Your task to perform on an android device: toggle improve location accuracy Image 0: 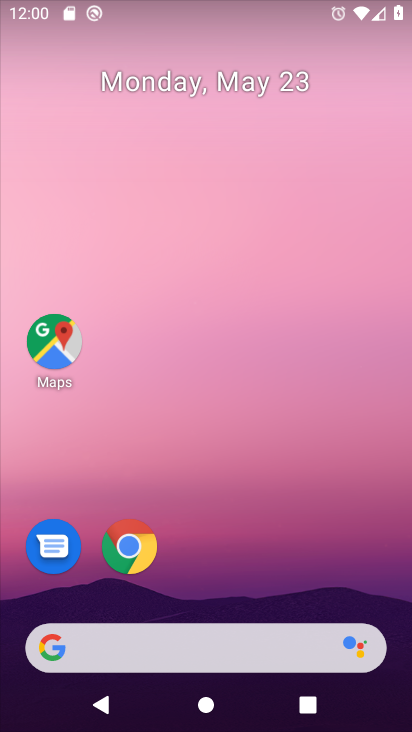
Step 0: drag from (272, 561) to (325, 111)
Your task to perform on an android device: toggle improve location accuracy Image 1: 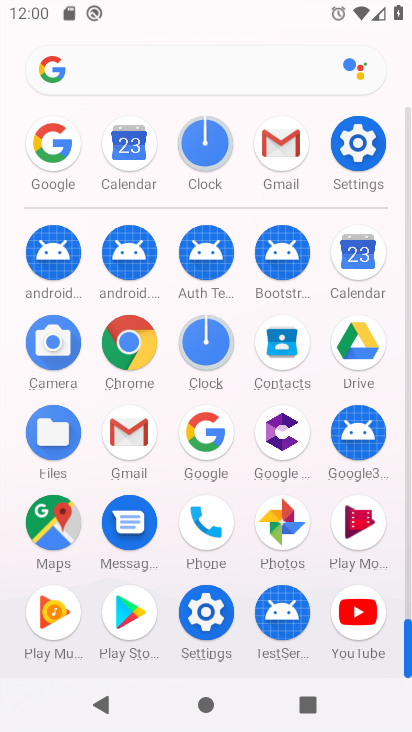
Step 1: click (367, 148)
Your task to perform on an android device: toggle improve location accuracy Image 2: 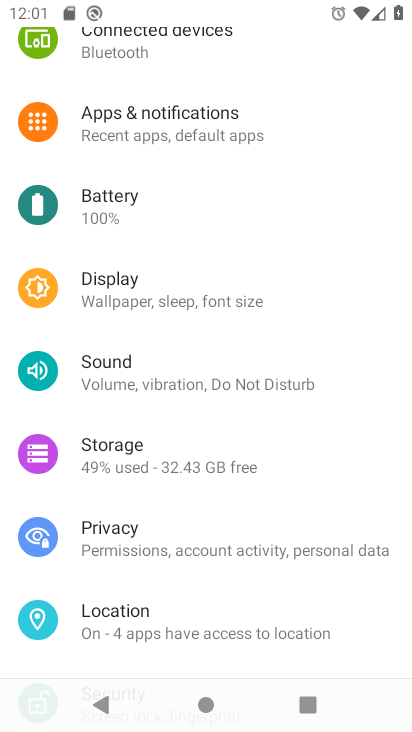
Step 2: click (200, 626)
Your task to perform on an android device: toggle improve location accuracy Image 3: 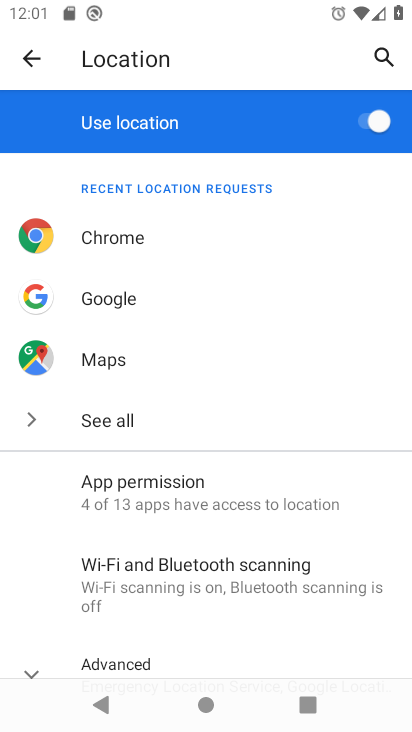
Step 3: drag from (207, 619) to (299, 146)
Your task to perform on an android device: toggle improve location accuracy Image 4: 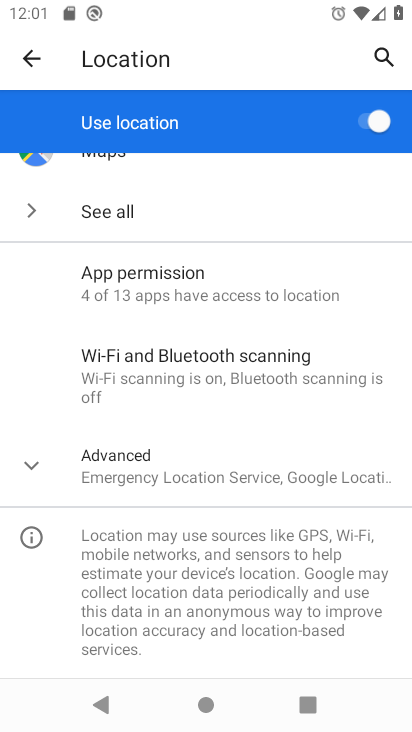
Step 4: click (208, 454)
Your task to perform on an android device: toggle improve location accuracy Image 5: 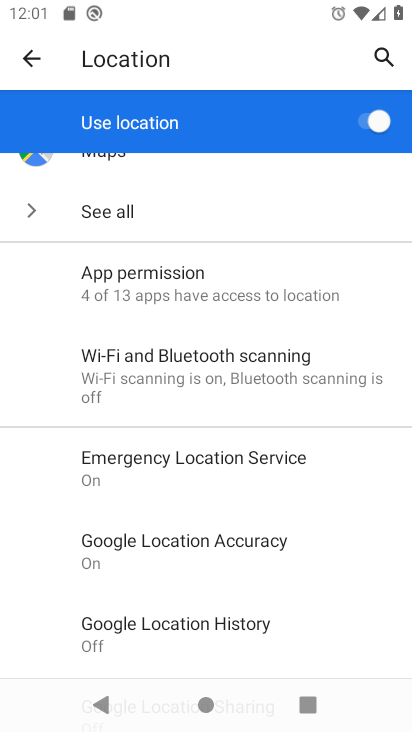
Step 5: click (253, 544)
Your task to perform on an android device: toggle improve location accuracy Image 6: 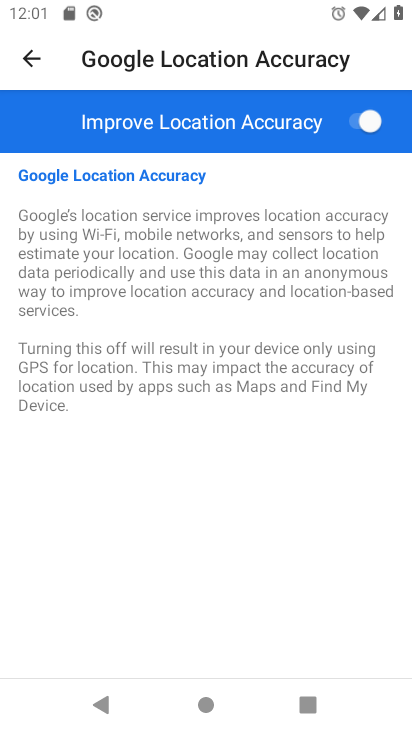
Step 6: click (346, 113)
Your task to perform on an android device: toggle improve location accuracy Image 7: 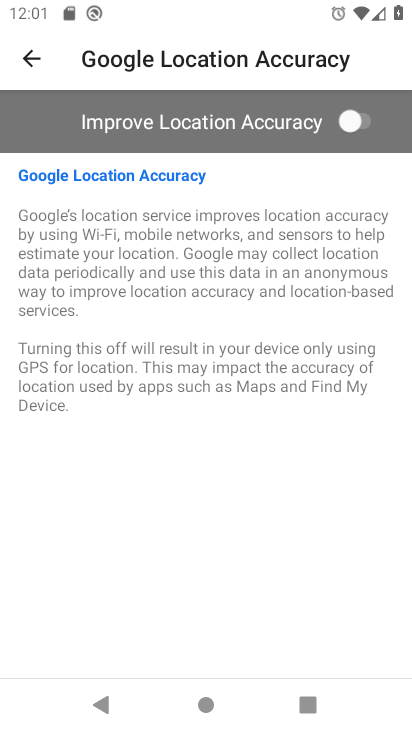
Step 7: task complete